Your task to perform on an android device: Turn on the flashlight Image 0: 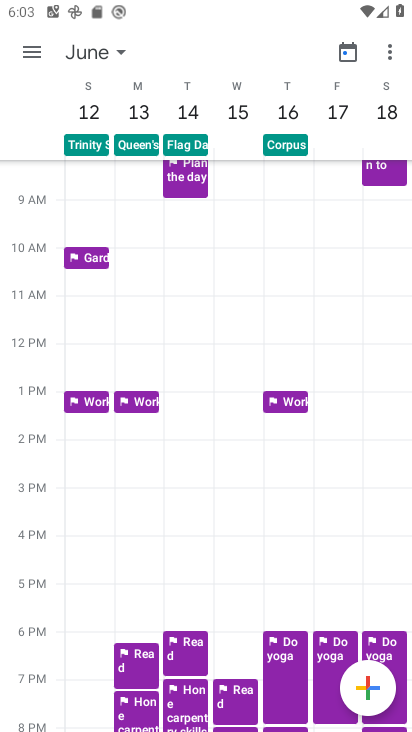
Step 0: press home button
Your task to perform on an android device: Turn on the flashlight Image 1: 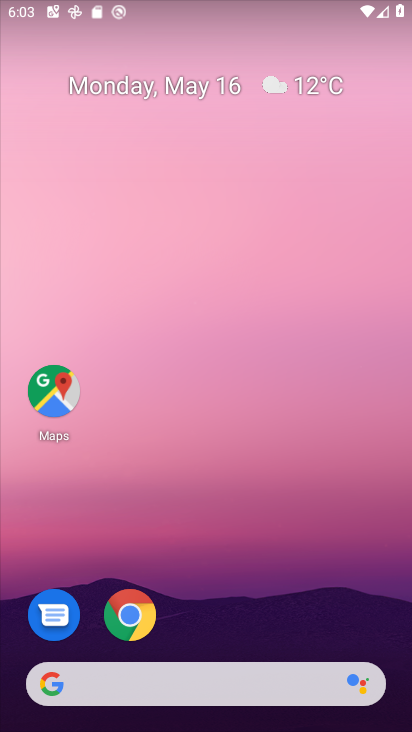
Step 1: drag from (210, 616) to (229, 35)
Your task to perform on an android device: Turn on the flashlight Image 2: 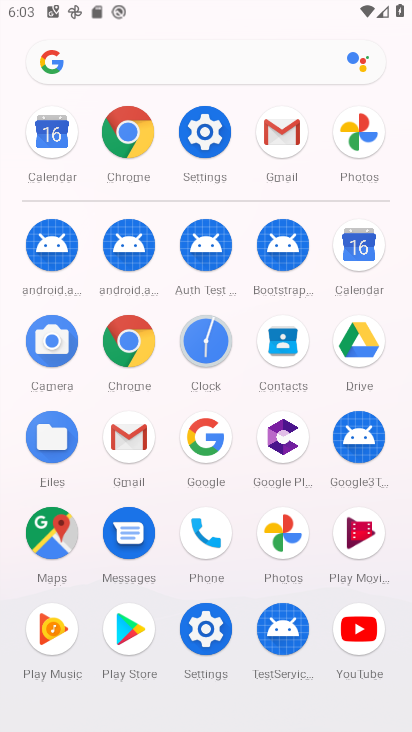
Step 2: click (196, 632)
Your task to perform on an android device: Turn on the flashlight Image 3: 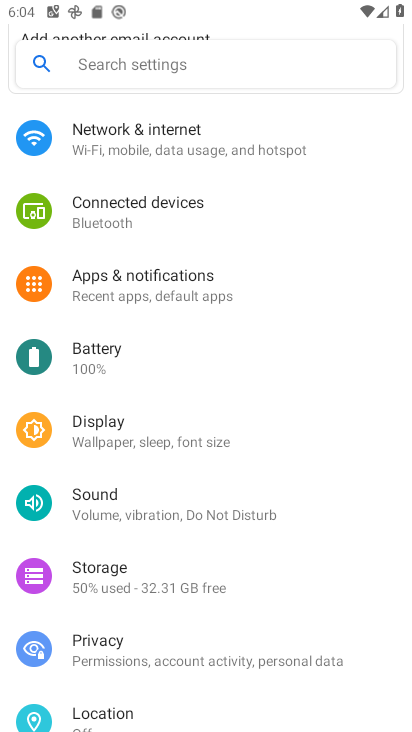
Step 3: task complete